Your task to perform on an android device: open sync settings in chrome Image 0: 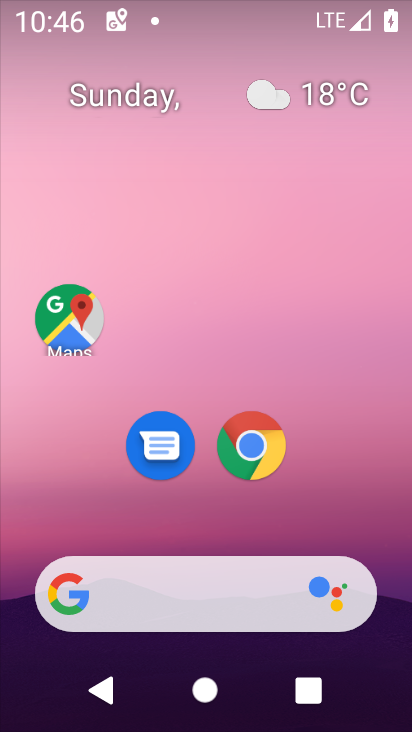
Step 0: press home button
Your task to perform on an android device: open sync settings in chrome Image 1: 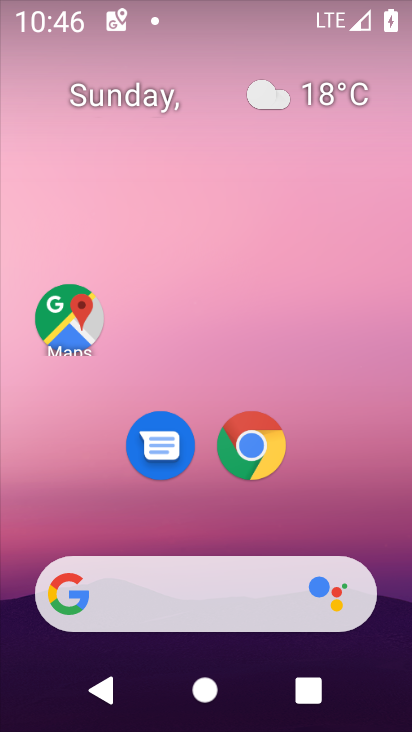
Step 1: click (252, 432)
Your task to perform on an android device: open sync settings in chrome Image 2: 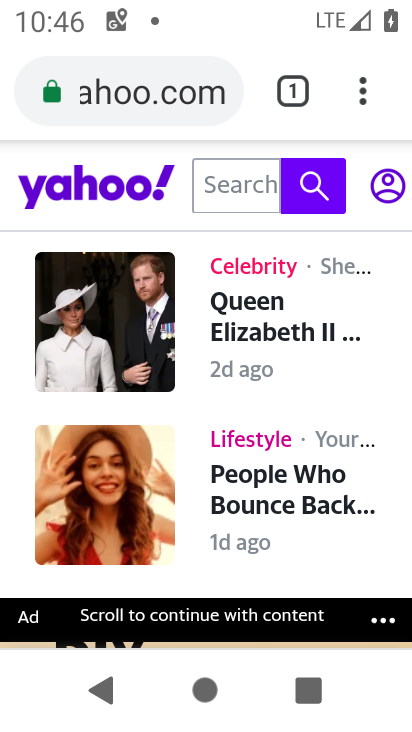
Step 2: click (363, 84)
Your task to perform on an android device: open sync settings in chrome Image 3: 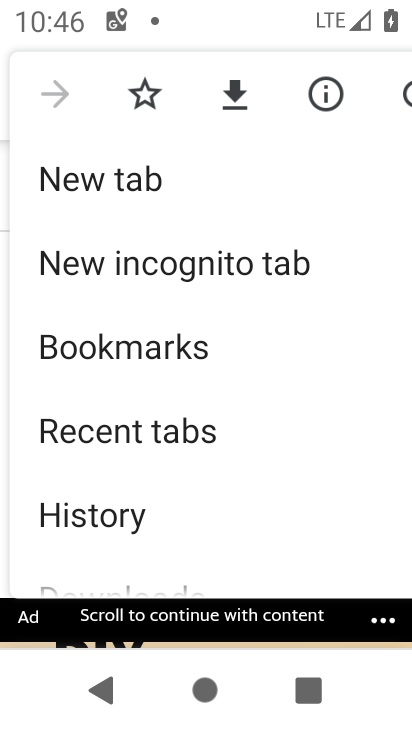
Step 3: drag from (178, 529) to (243, 80)
Your task to perform on an android device: open sync settings in chrome Image 4: 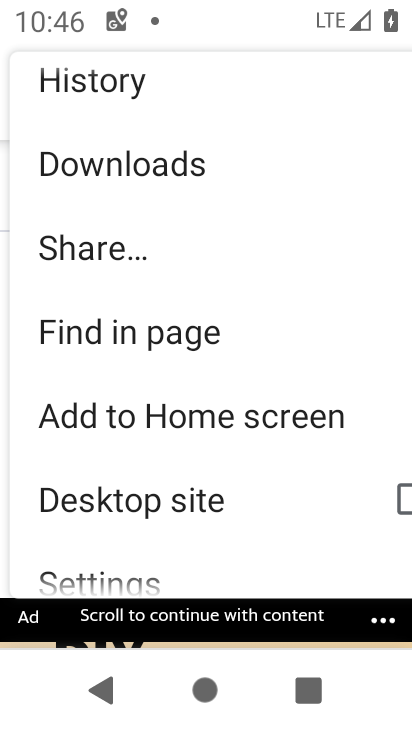
Step 4: click (170, 572)
Your task to perform on an android device: open sync settings in chrome Image 5: 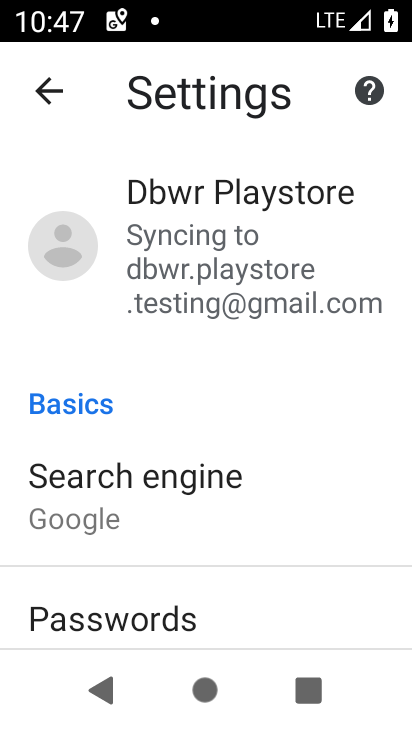
Step 5: click (175, 252)
Your task to perform on an android device: open sync settings in chrome Image 6: 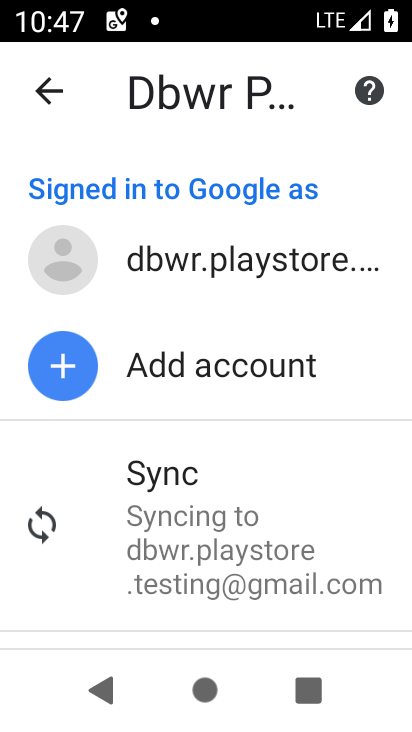
Step 6: click (224, 515)
Your task to perform on an android device: open sync settings in chrome Image 7: 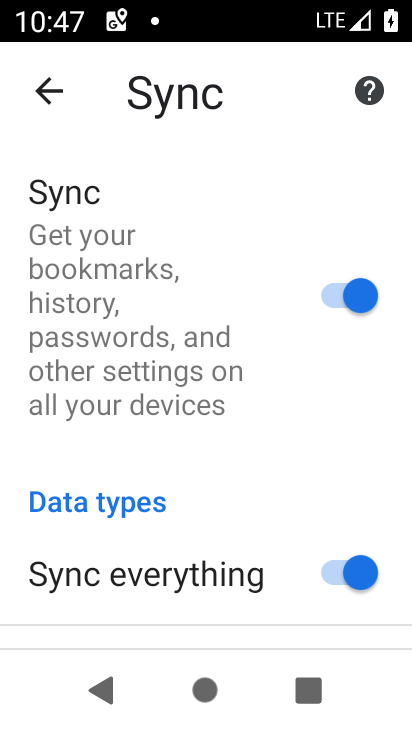
Step 7: task complete